Your task to perform on an android device: toggle show notifications on the lock screen Image 0: 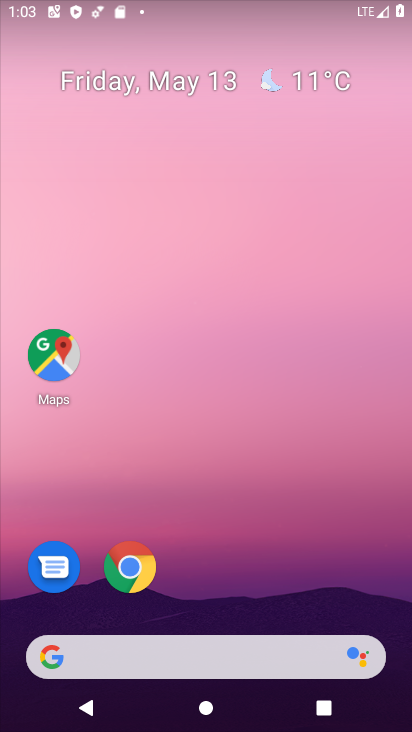
Step 0: drag from (229, 592) to (295, 161)
Your task to perform on an android device: toggle show notifications on the lock screen Image 1: 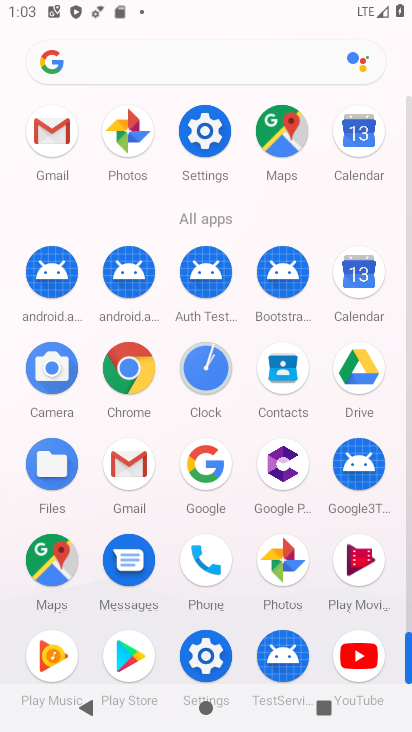
Step 1: drag from (103, 625) to (131, 451)
Your task to perform on an android device: toggle show notifications on the lock screen Image 2: 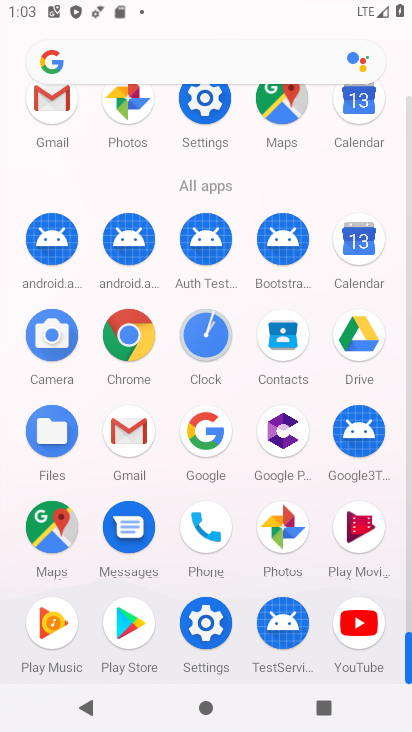
Step 2: click (207, 614)
Your task to perform on an android device: toggle show notifications on the lock screen Image 3: 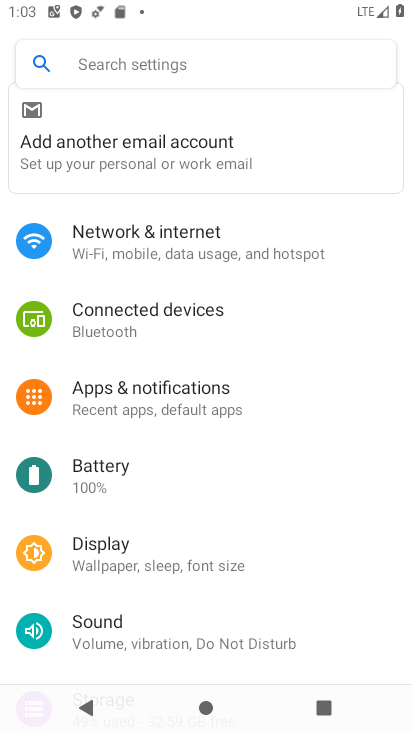
Step 3: click (163, 416)
Your task to perform on an android device: toggle show notifications on the lock screen Image 4: 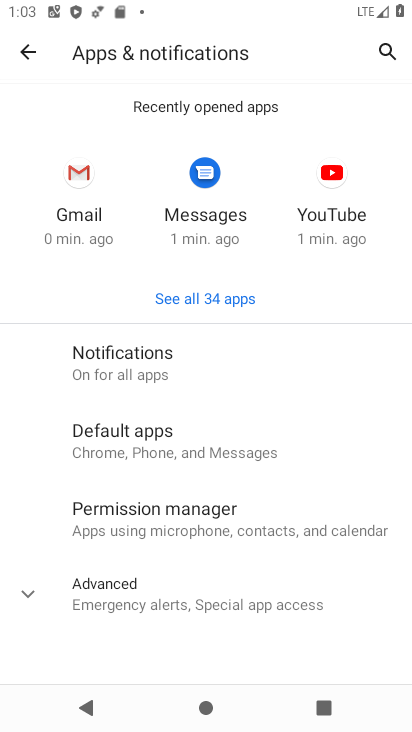
Step 4: click (159, 366)
Your task to perform on an android device: toggle show notifications on the lock screen Image 5: 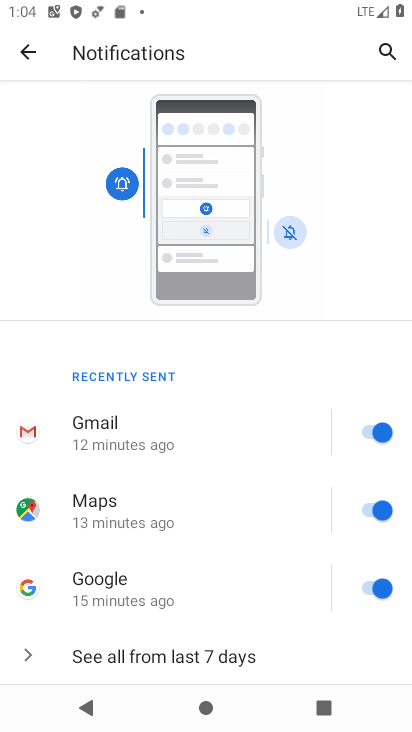
Step 5: drag from (193, 660) to (245, 346)
Your task to perform on an android device: toggle show notifications on the lock screen Image 6: 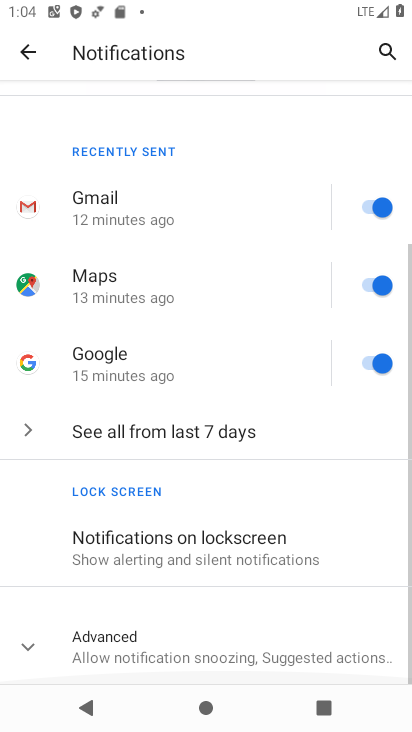
Step 6: click (213, 540)
Your task to perform on an android device: toggle show notifications on the lock screen Image 7: 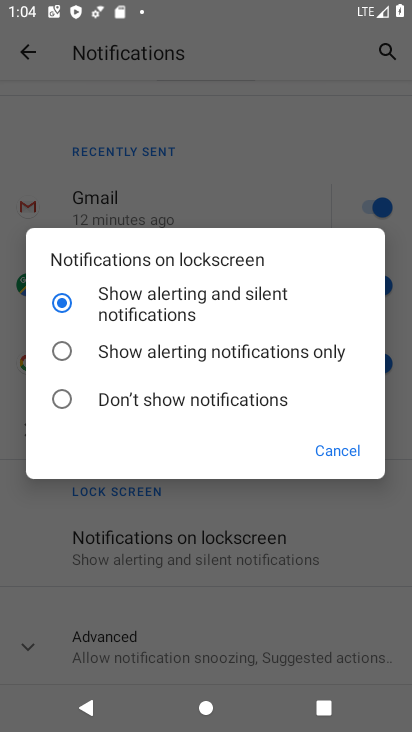
Step 7: click (167, 403)
Your task to perform on an android device: toggle show notifications on the lock screen Image 8: 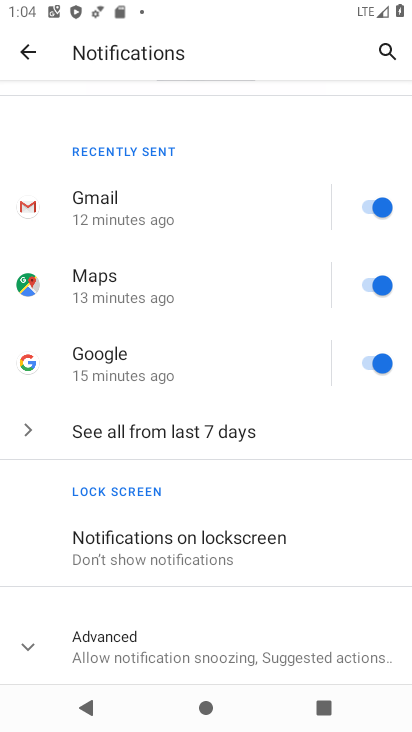
Step 8: task complete